Your task to perform on an android device: Show me popular videos on Youtube Image 0: 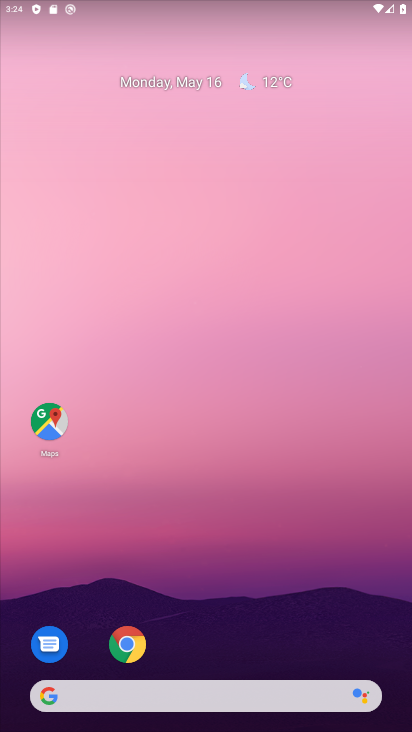
Step 0: drag from (280, 591) to (138, 0)
Your task to perform on an android device: Show me popular videos on Youtube Image 1: 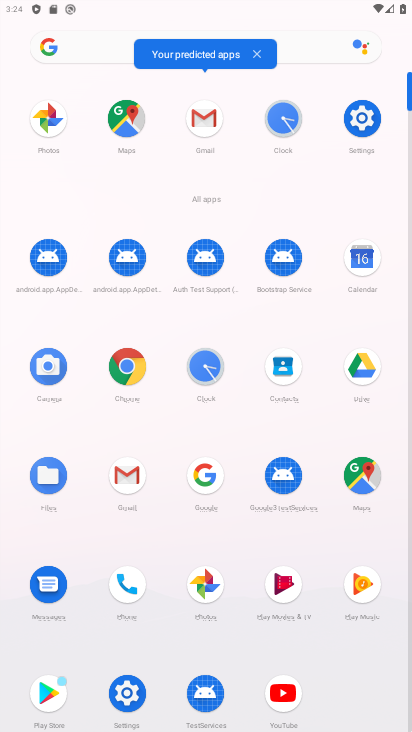
Step 1: click (282, 686)
Your task to perform on an android device: Show me popular videos on Youtube Image 2: 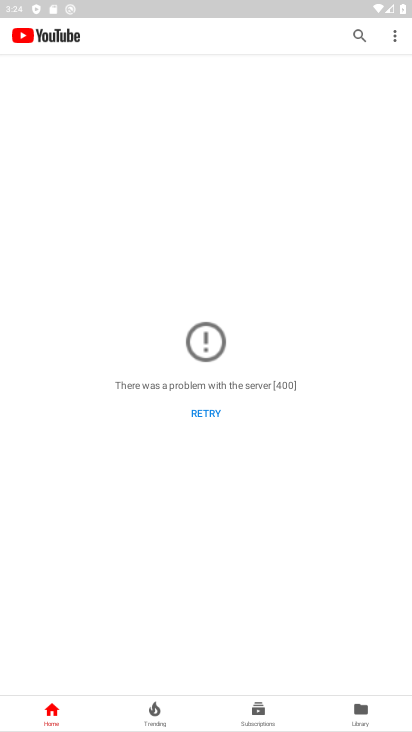
Step 2: click (214, 417)
Your task to perform on an android device: Show me popular videos on Youtube Image 3: 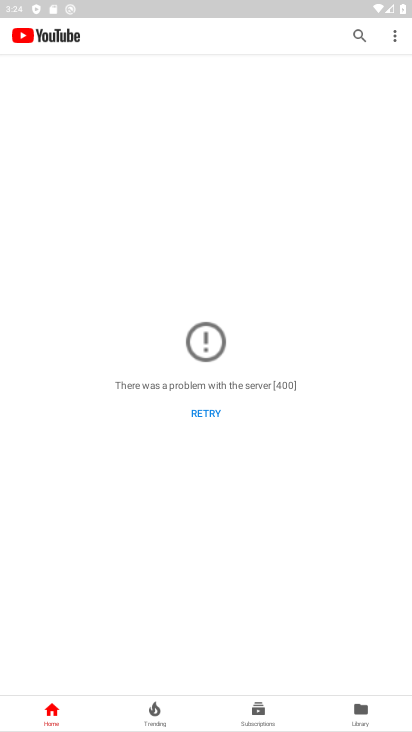
Step 3: click (205, 412)
Your task to perform on an android device: Show me popular videos on Youtube Image 4: 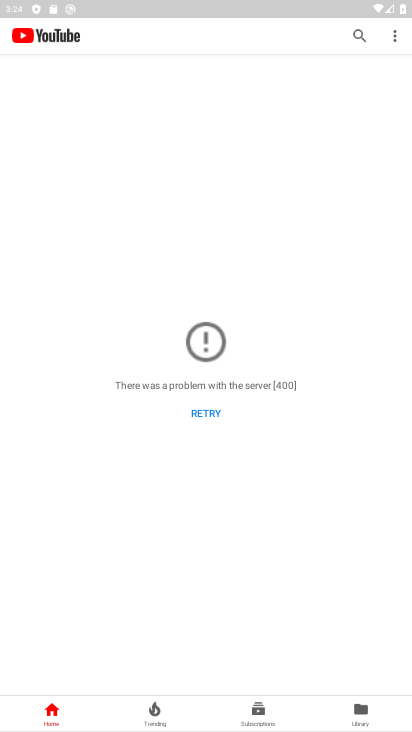
Step 4: task complete